Your task to perform on an android device: open app "ColorNote Notepad Notes" (install if not already installed), go to login, and select forgot password Image 0: 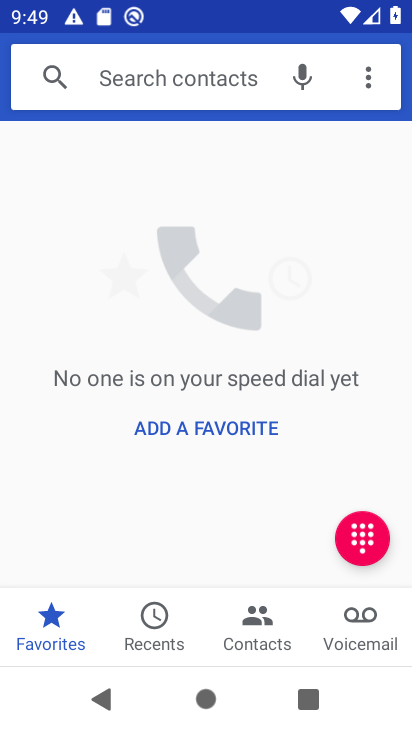
Step 0: press home button
Your task to perform on an android device: open app "ColorNote Notepad Notes" (install if not already installed), go to login, and select forgot password Image 1: 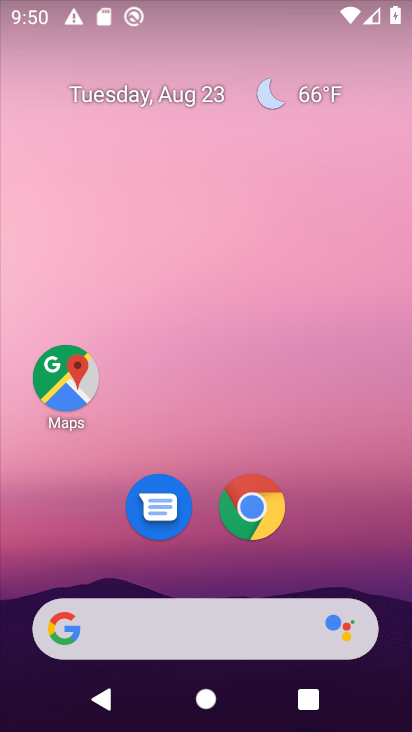
Step 1: drag from (379, 563) to (340, 51)
Your task to perform on an android device: open app "ColorNote Notepad Notes" (install if not already installed), go to login, and select forgot password Image 2: 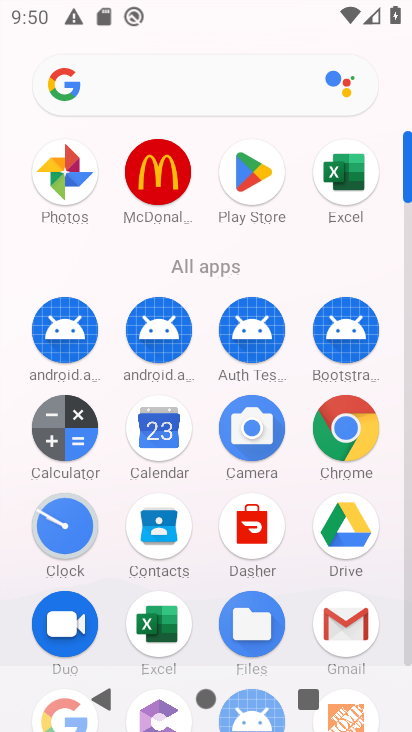
Step 2: click (410, 648)
Your task to perform on an android device: open app "ColorNote Notepad Notes" (install if not already installed), go to login, and select forgot password Image 3: 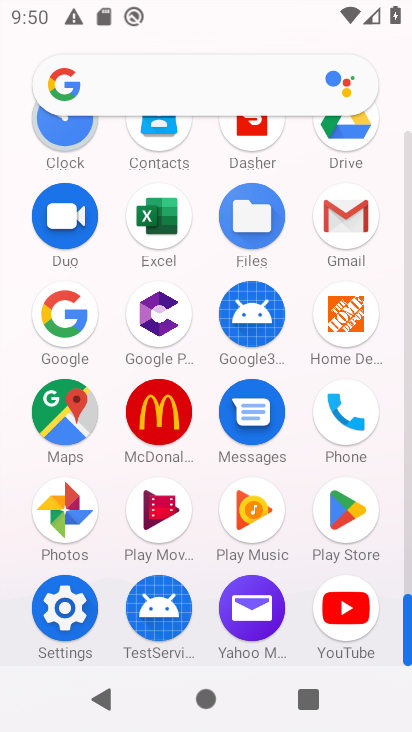
Step 3: click (349, 515)
Your task to perform on an android device: open app "ColorNote Notepad Notes" (install if not already installed), go to login, and select forgot password Image 4: 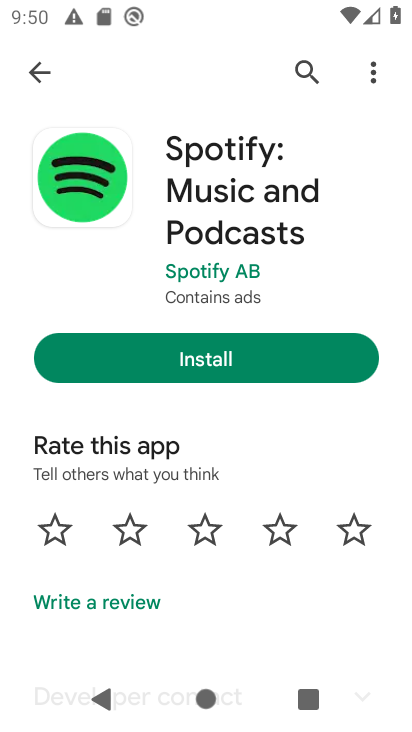
Step 4: click (294, 76)
Your task to perform on an android device: open app "ColorNote Notepad Notes" (install if not already installed), go to login, and select forgot password Image 5: 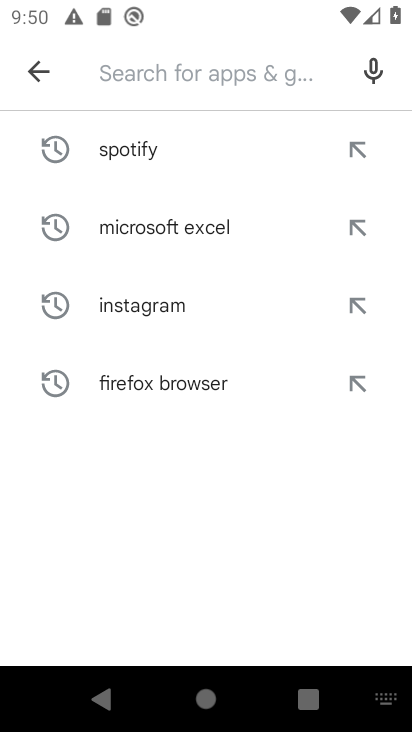
Step 5: type "ColorNote Notepad Notes"
Your task to perform on an android device: open app "ColorNote Notepad Notes" (install if not already installed), go to login, and select forgot password Image 6: 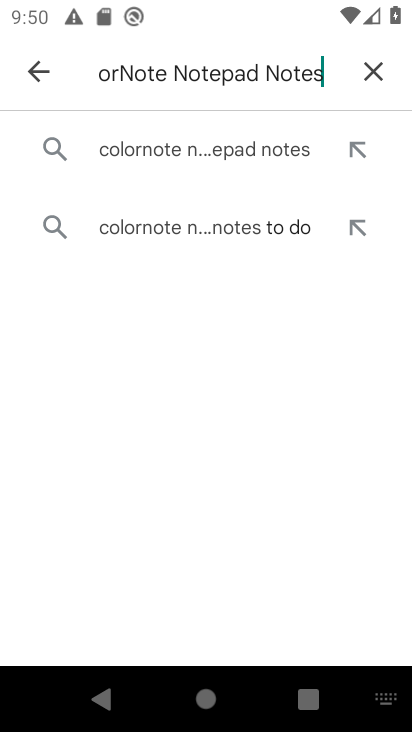
Step 6: click (192, 151)
Your task to perform on an android device: open app "ColorNote Notepad Notes" (install if not already installed), go to login, and select forgot password Image 7: 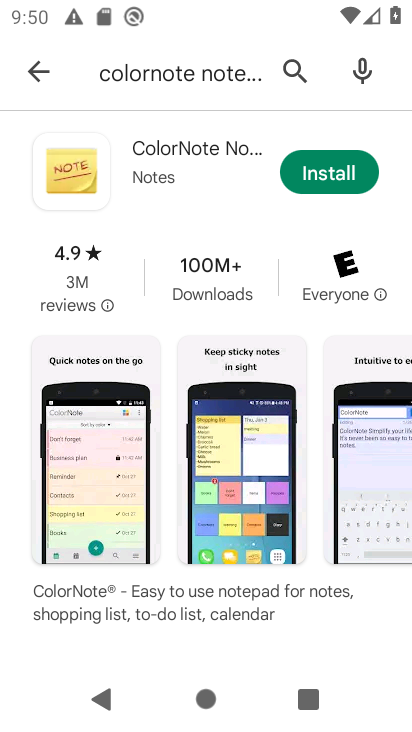
Step 7: click (318, 169)
Your task to perform on an android device: open app "ColorNote Notepad Notes" (install if not already installed), go to login, and select forgot password Image 8: 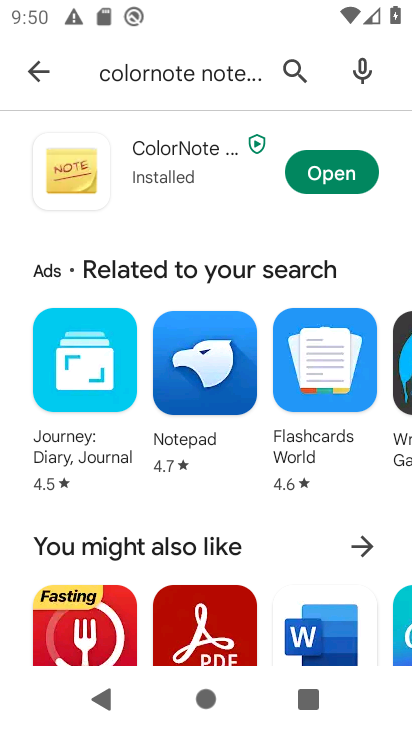
Step 8: click (335, 169)
Your task to perform on an android device: open app "ColorNote Notepad Notes" (install if not already installed), go to login, and select forgot password Image 9: 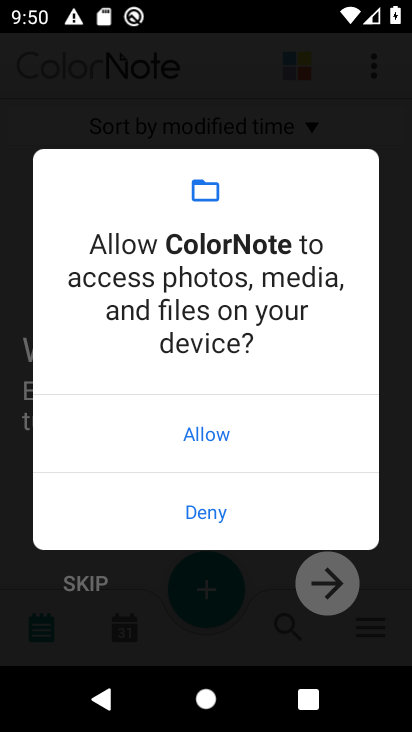
Step 9: click (220, 432)
Your task to perform on an android device: open app "ColorNote Notepad Notes" (install if not already installed), go to login, and select forgot password Image 10: 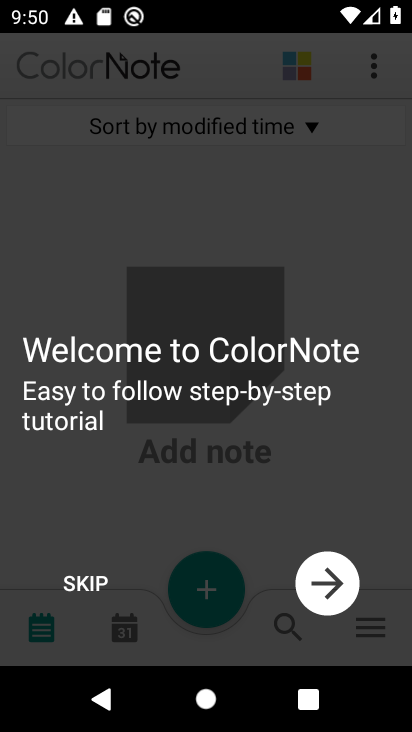
Step 10: click (79, 580)
Your task to perform on an android device: open app "ColorNote Notepad Notes" (install if not already installed), go to login, and select forgot password Image 11: 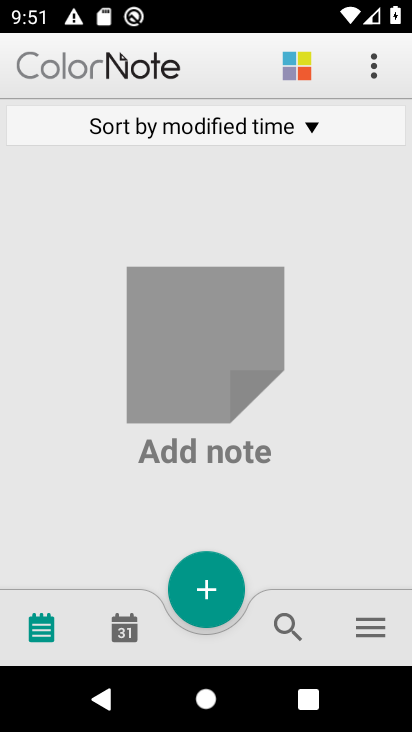
Step 11: click (367, 637)
Your task to perform on an android device: open app "ColorNote Notepad Notes" (install if not already installed), go to login, and select forgot password Image 12: 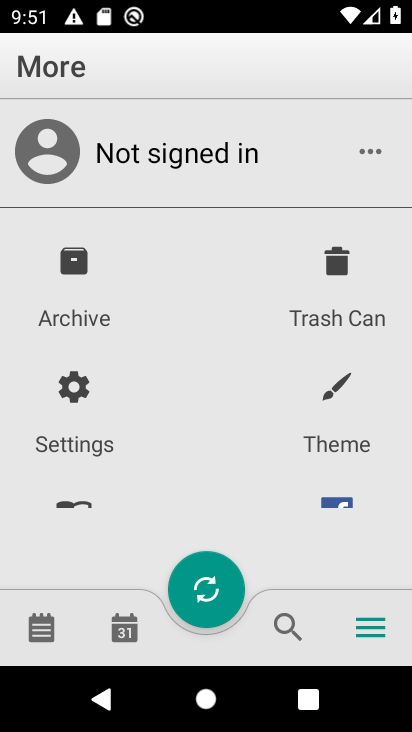
Step 12: click (136, 150)
Your task to perform on an android device: open app "ColorNote Notepad Notes" (install if not already installed), go to login, and select forgot password Image 13: 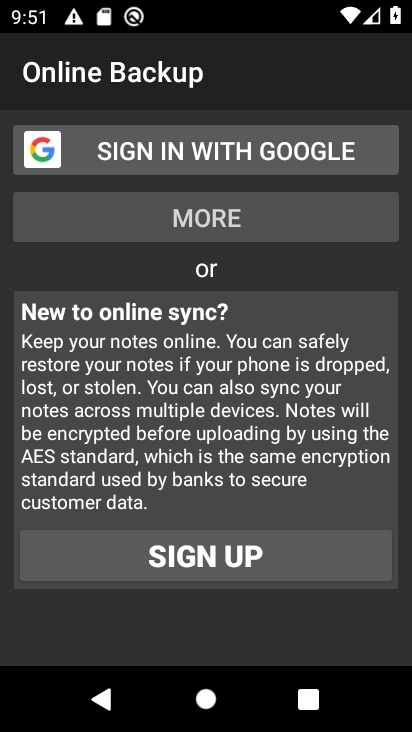
Step 13: click (203, 215)
Your task to perform on an android device: open app "ColorNote Notepad Notes" (install if not already installed), go to login, and select forgot password Image 14: 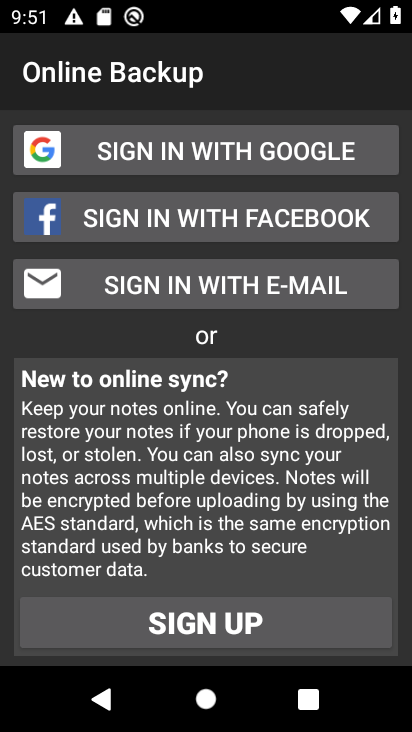
Step 14: click (194, 283)
Your task to perform on an android device: open app "ColorNote Notepad Notes" (install if not already installed), go to login, and select forgot password Image 15: 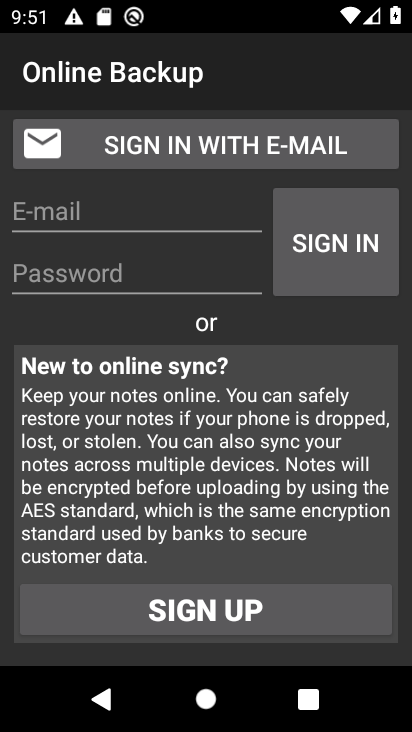
Step 15: task complete